Your task to perform on an android device: Go to Google Image 0: 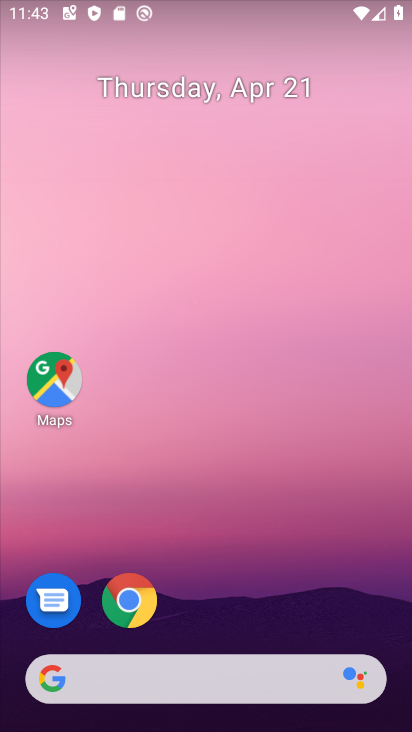
Step 0: drag from (194, 492) to (216, 151)
Your task to perform on an android device: Go to Google Image 1: 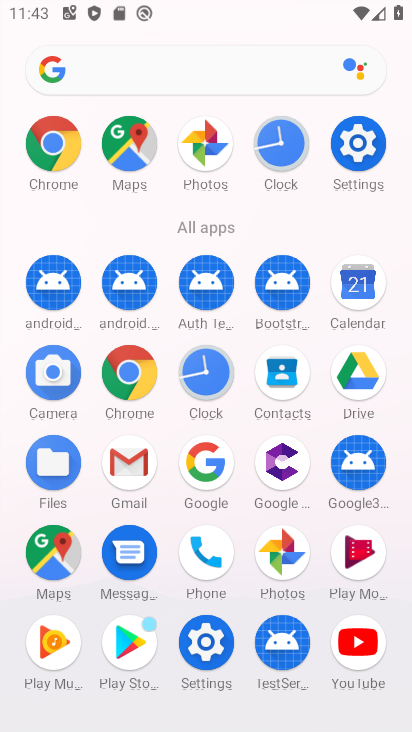
Step 1: drag from (174, 599) to (176, 503)
Your task to perform on an android device: Go to Google Image 2: 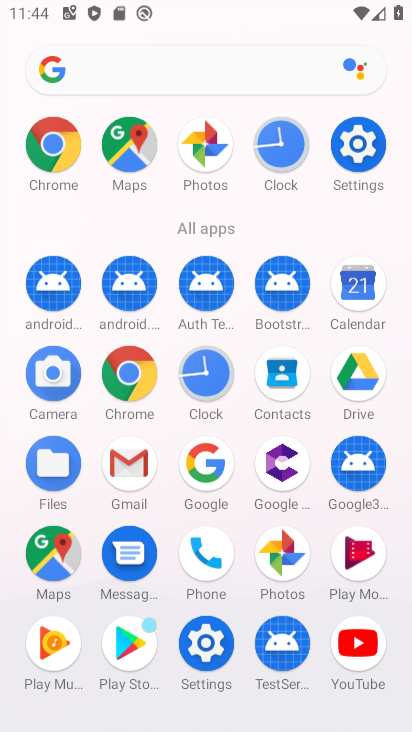
Step 2: click (198, 469)
Your task to perform on an android device: Go to Google Image 3: 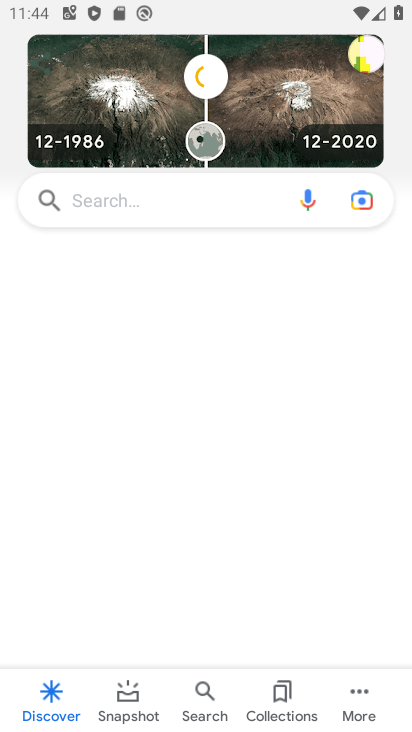
Step 3: task complete